Your task to perform on an android device: Go to Amazon Image 0: 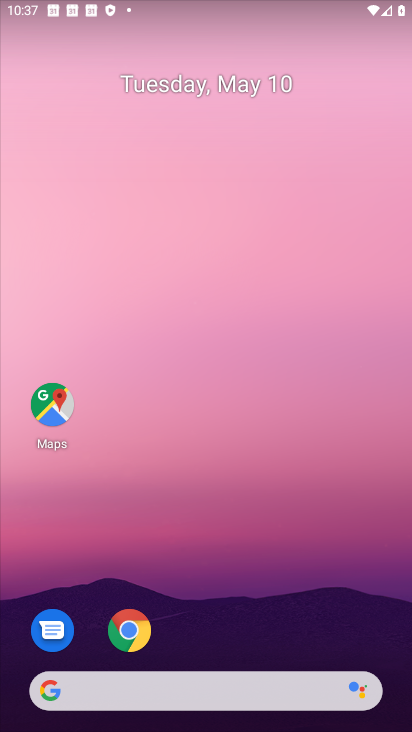
Step 0: click (296, 694)
Your task to perform on an android device: Go to Amazon Image 1: 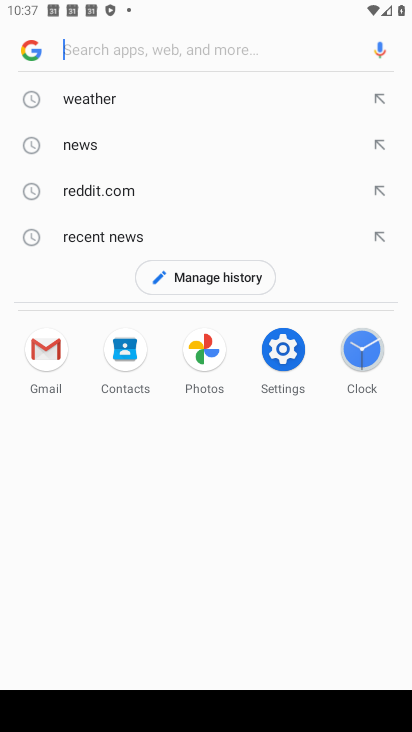
Step 1: type "amazon"
Your task to perform on an android device: Go to Amazon Image 2: 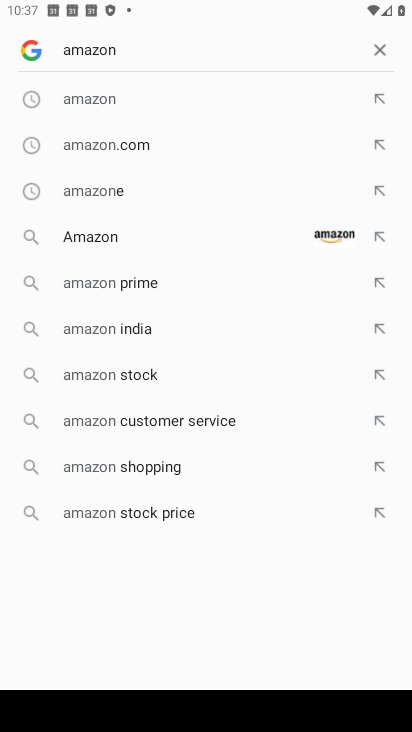
Step 2: click (153, 243)
Your task to perform on an android device: Go to Amazon Image 3: 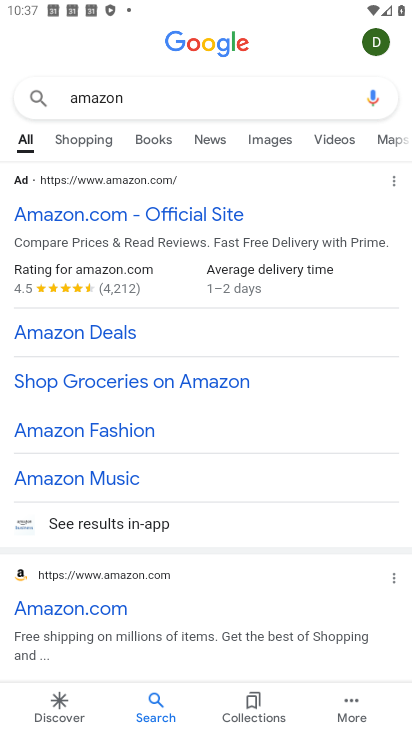
Step 3: click (42, 192)
Your task to perform on an android device: Go to Amazon Image 4: 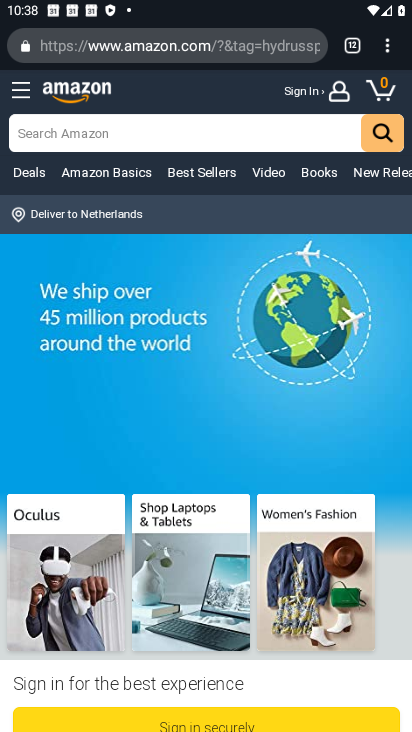
Step 4: task complete